Your task to perform on an android device: clear all cookies in the chrome app Image 0: 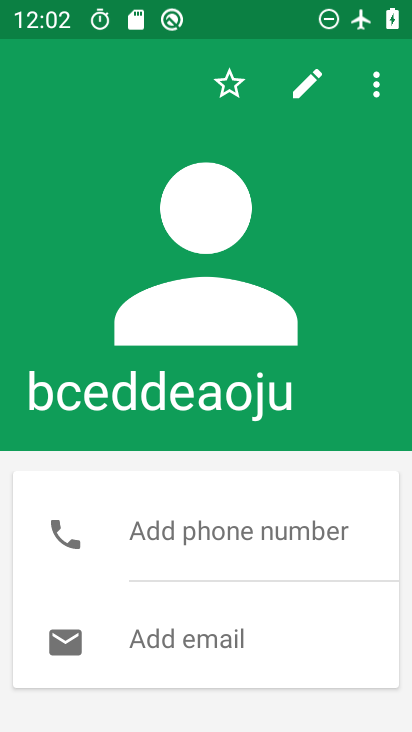
Step 0: press home button
Your task to perform on an android device: clear all cookies in the chrome app Image 1: 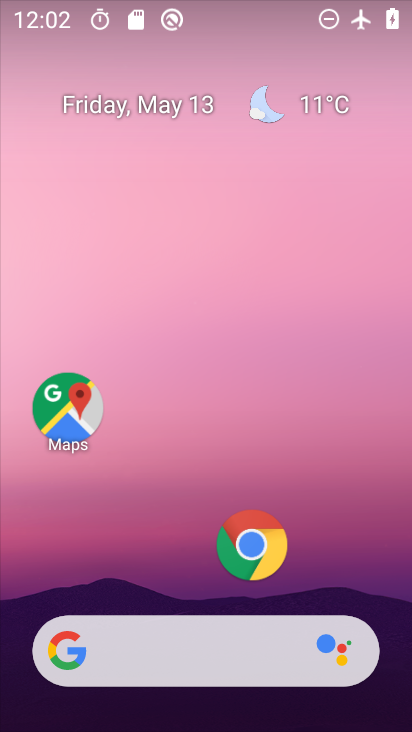
Step 1: click (248, 539)
Your task to perform on an android device: clear all cookies in the chrome app Image 2: 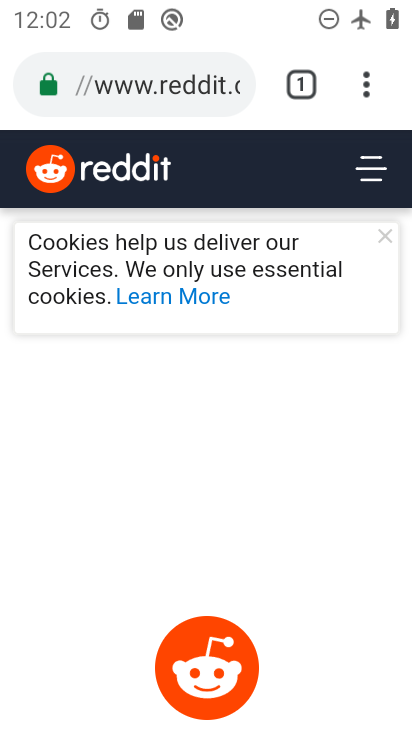
Step 2: click (385, 229)
Your task to perform on an android device: clear all cookies in the chrome app Image 3: 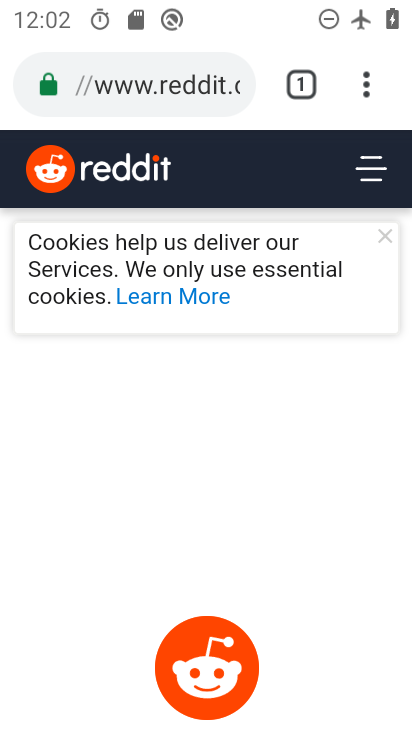
Step 3: click (358, 75)
Your task to perform on an android device: clear all cookies in the chrome app Image 4: 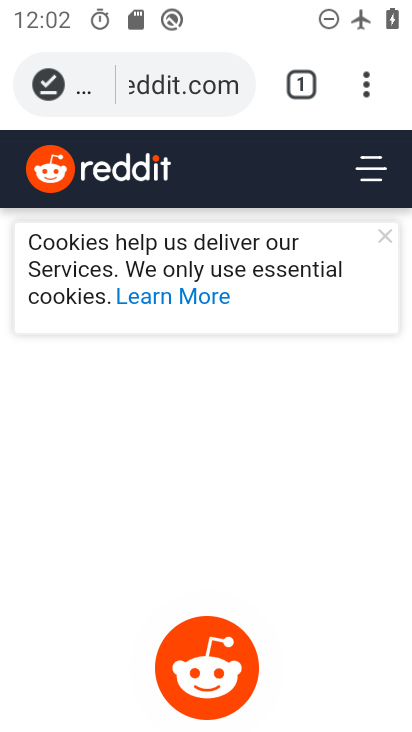
Step 4: click (370, 86)
Your task to perform on an android device: clear all cookies in the chrome app Image 5: 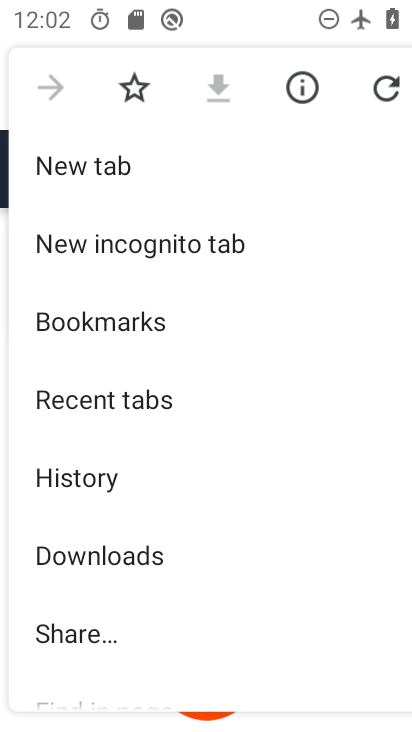
Step 5: click (131, 477)
Your task to perform on an android device: clear all cookies in the chrome app Image 6: 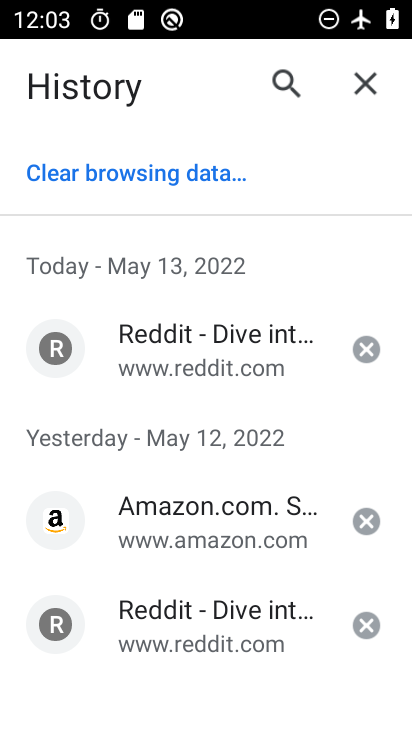
Step 6: click (138, 171)
Your task to perform on an android device: clear all cookies in the chrome app Image 7: 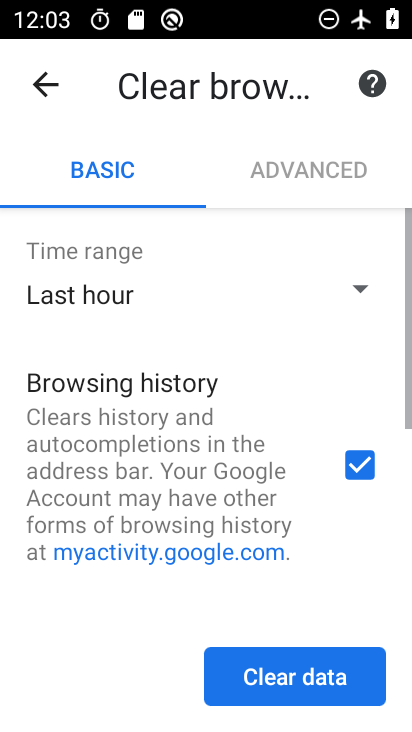
Step 7: drag from (223, 523) to (219, 258)
Your task to perform on an android device: clear all cookies in the chrome app Image 8: 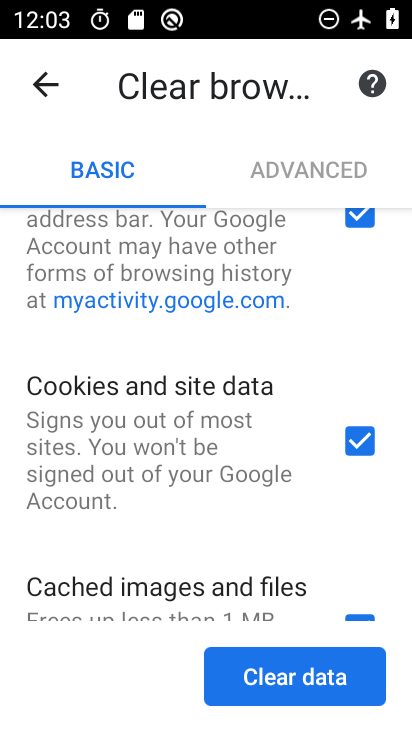
Step 8: drag from (207, 559) to (210, 276)
Your task to perform on an android device: clear all cookies in the chrome app Image 9: 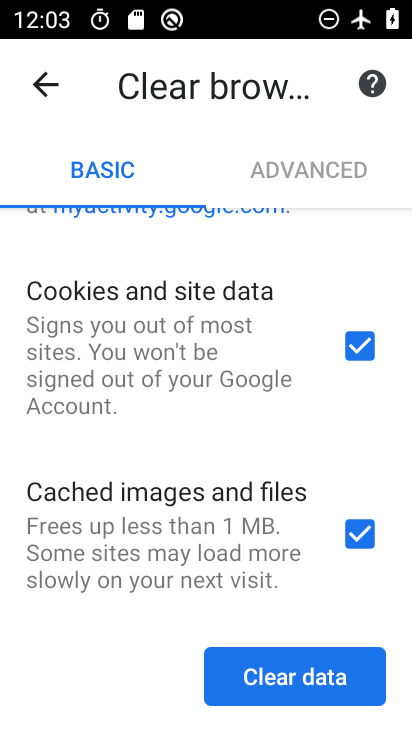
Step 9: click (293, 676)
Your task to perform on an android device: clear all cookies in the chrome app Image 10: 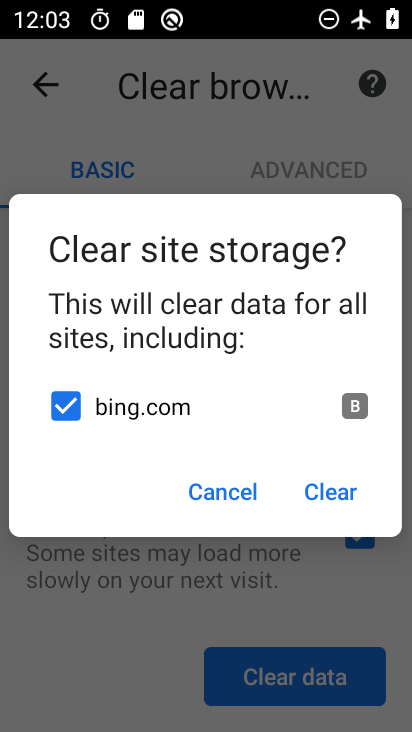
Step 10: click (328, 492)
Your task to perform on an android device: clear all cookies in the chrome app Image 11: 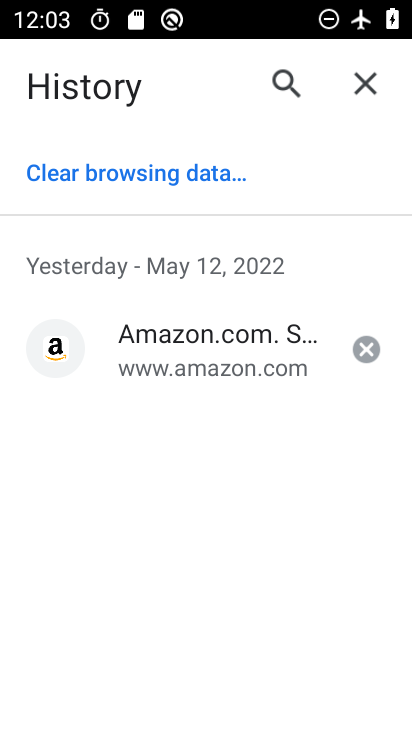
Step 11: task complete